Your task to perform on an android device: open app "Calculator" (install if not already installed) Image 0: 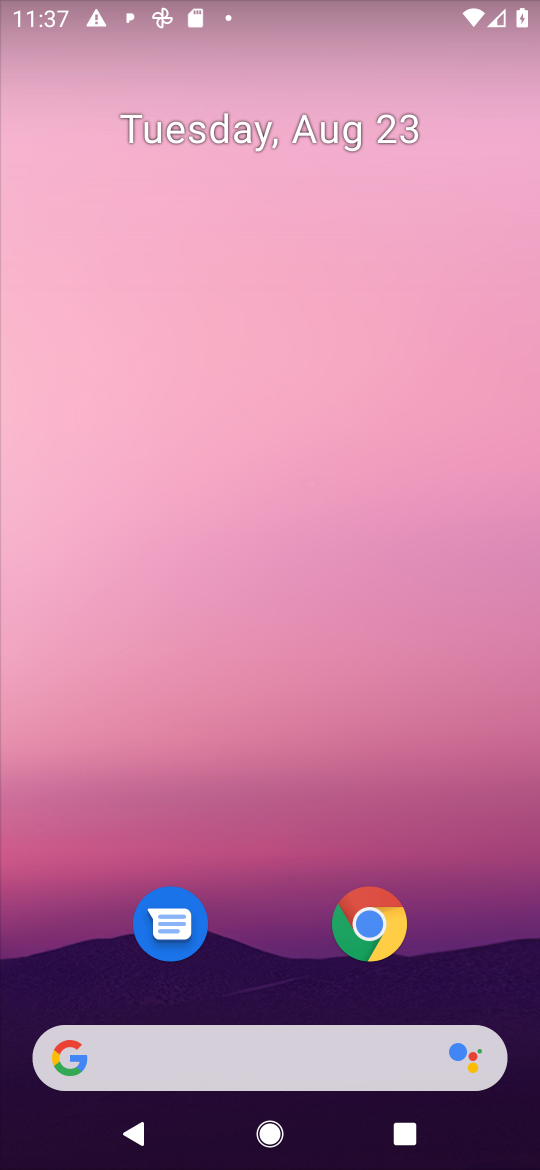
Step 0: press home button
Your task to perform on an android device: open app "Calculator" (install if not already installed) Image 1: 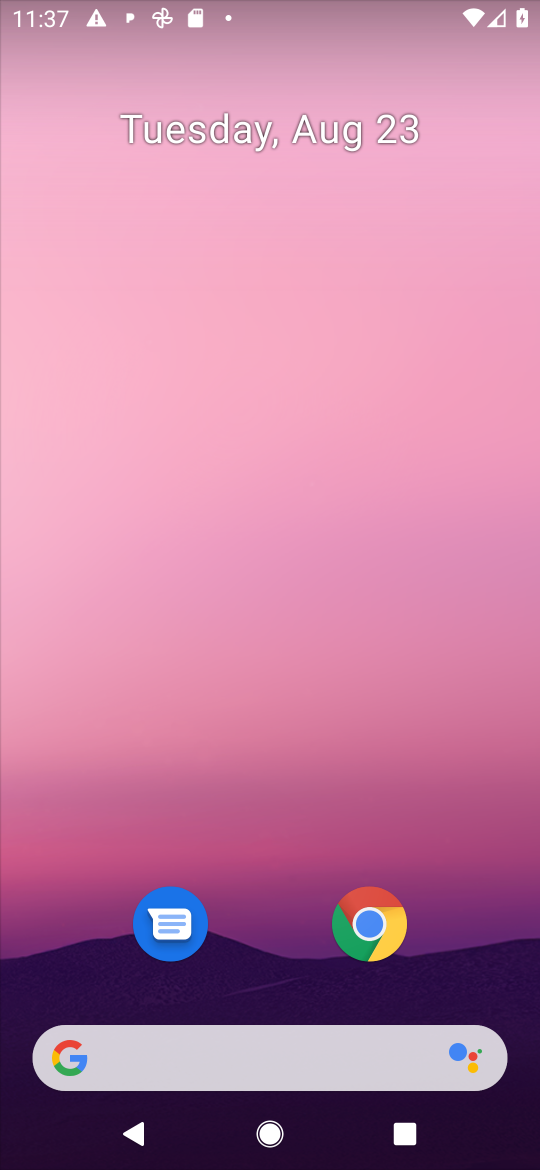
Step 1: drag from (430, 988) to (442, 336)
Your task to perform on an android device: open app "Calculator" (install if not already installed) Image 2: 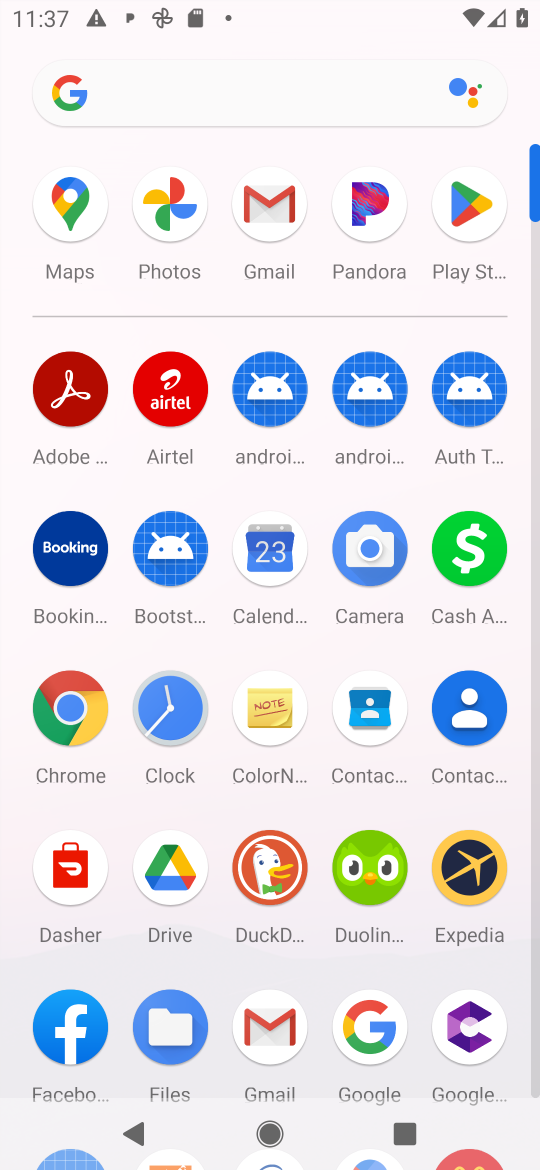
Step 2: click (471, 209)
Your task to perform on an android device: open app "Calculator" (install if not already installed) Image 3: 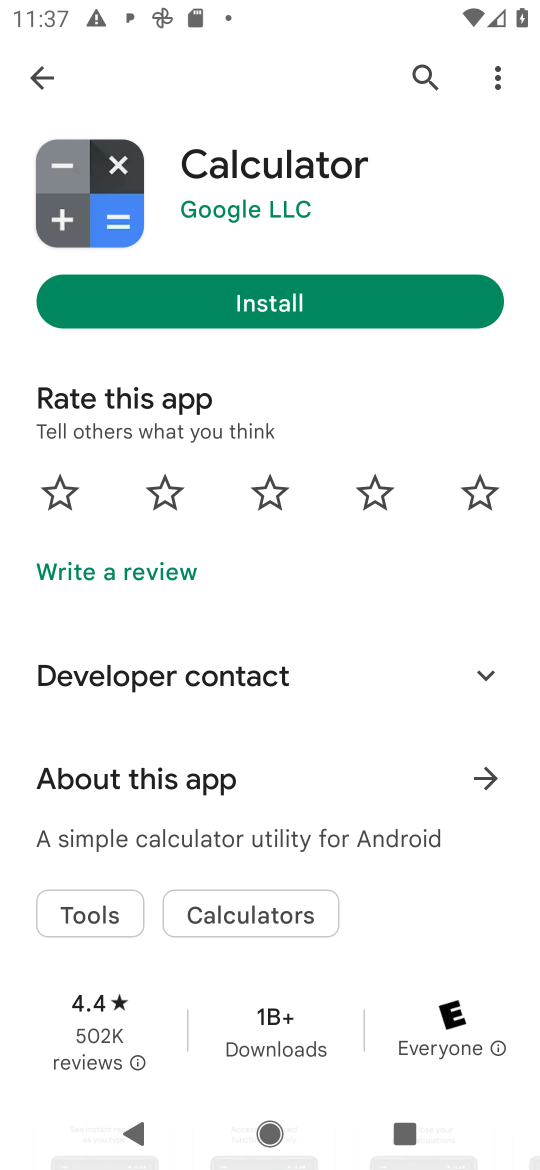
Step 3: click (362, 308)
Your task to perform on an android device: open app "Calculator" (install if not already installed) Image 4: 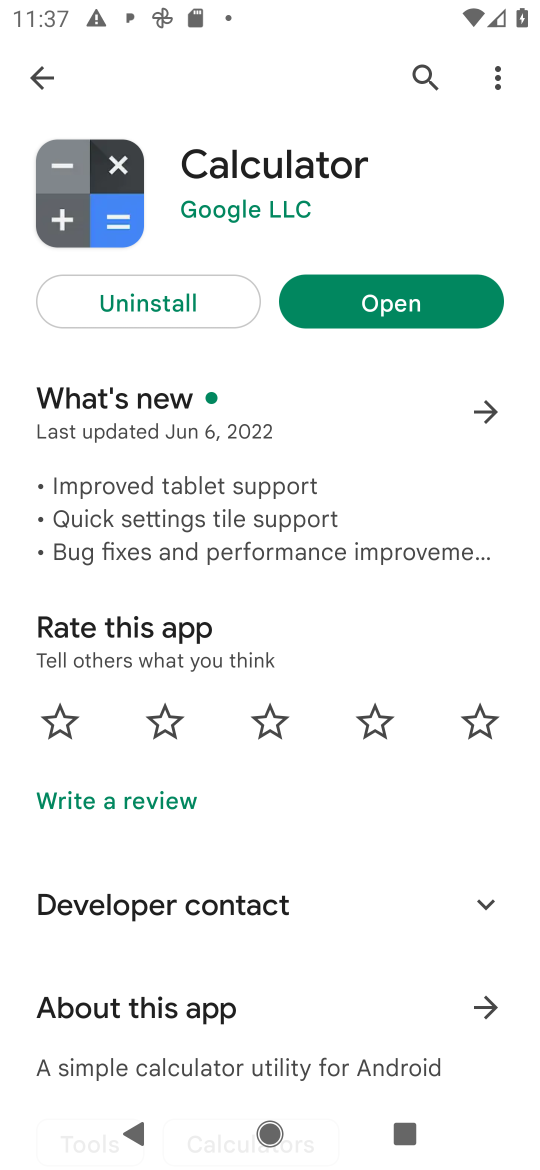
Step 4: click (433, 308)
Your task to perform on an android device: open app "Calculator" (install if not already installed) Image 5: 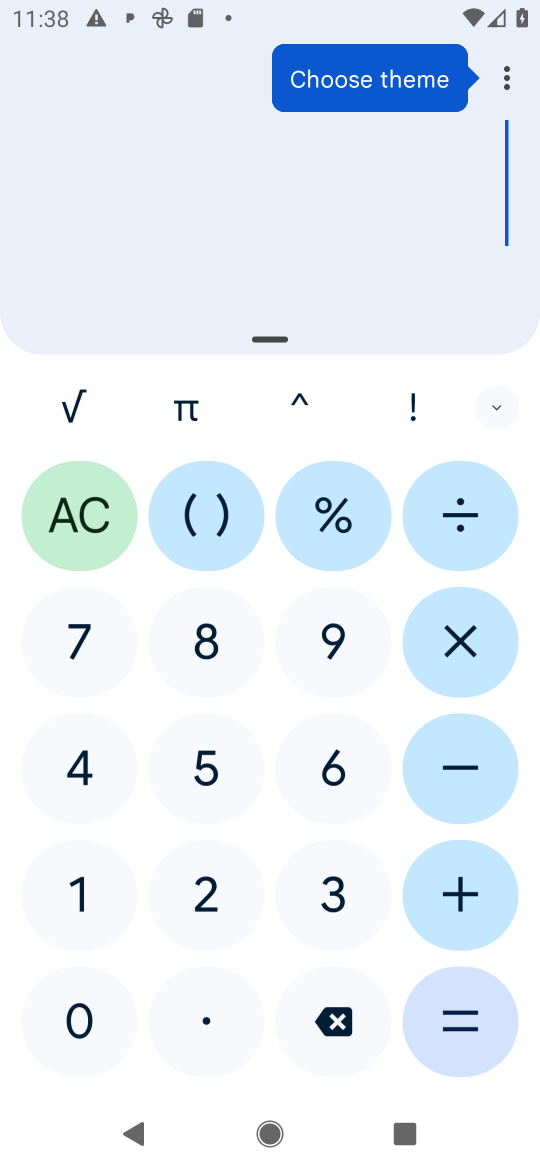
Step 5: task complete